Your task to perform on an android device: Open wifi settings Image 0: 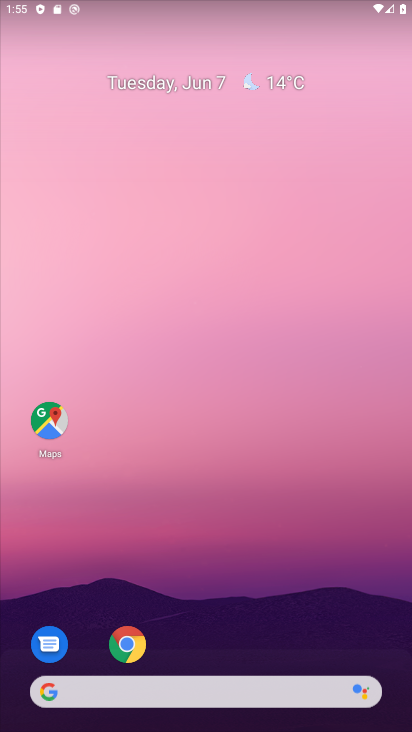
Step 0: drag from (344, 592) to (353, 99)
Your task to perform on an android device: Open wifi settings Image 1: 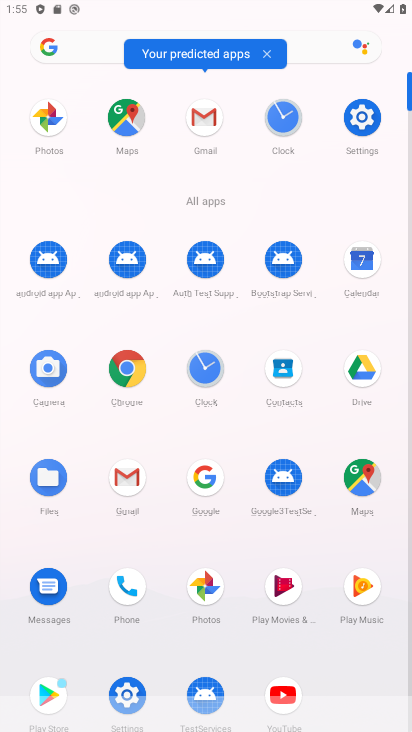
Step 1: click (356, 134)
Your task to perform on an android device: Open wifi settings Image 2: 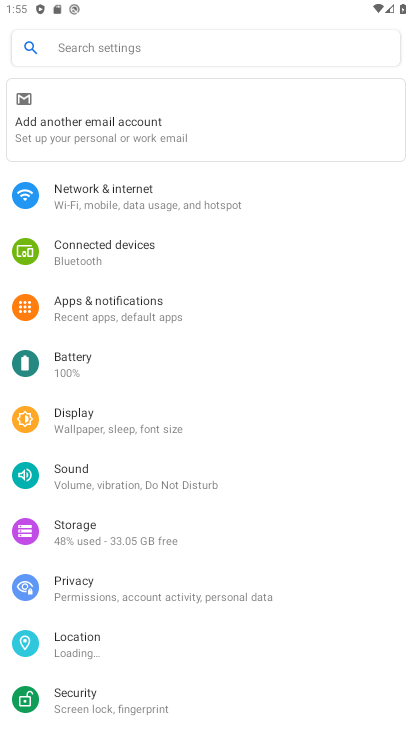
Step 2: drag from (303, 429) to (286, 302)
Your task to perform on an android device: Open wifi settings Image 3: 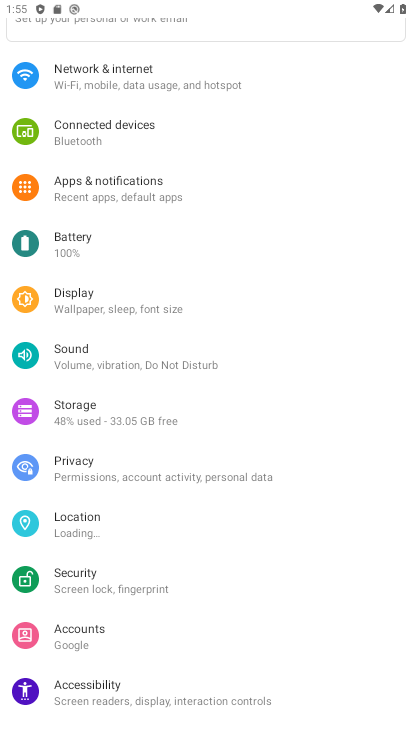
Step 3: drag from (300, 504) to (319, 356)
Your task to perform on an android device: Open wifi settings Image 4: 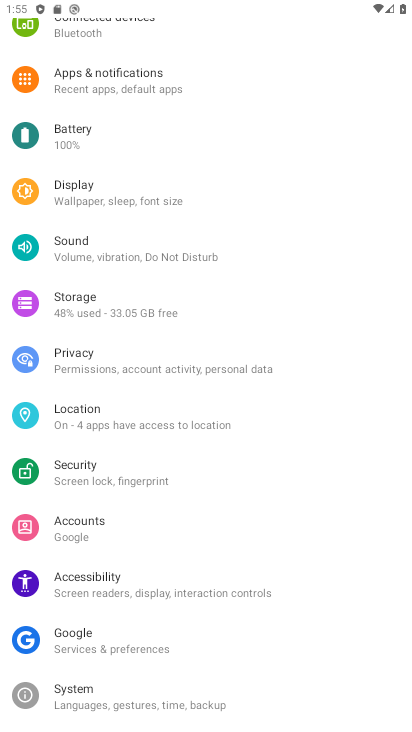
Step 4: drag from (335, 525) to (332, 400)
Your task to perform on an android device: Open wifi settings Image 5: 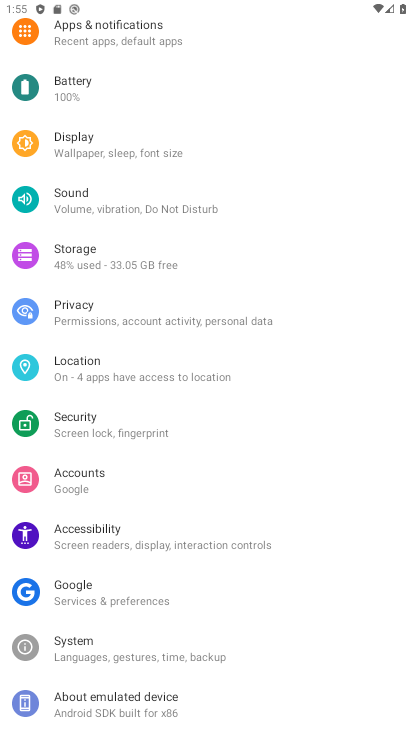
Step 5: drag from (330, 526) to (329, 376)
Your task to perform on an android device: Open wifi settings Image 6: 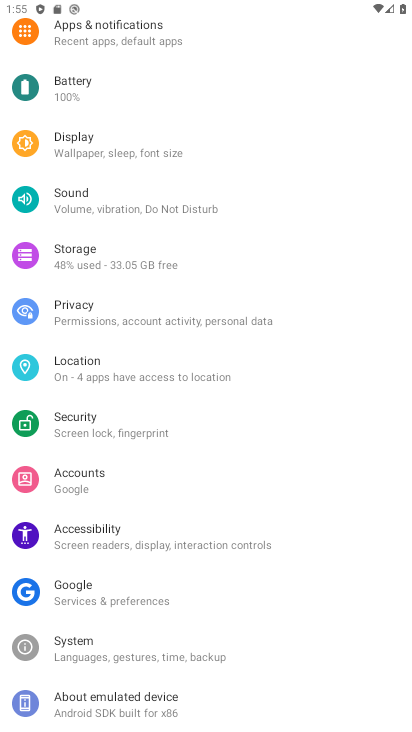
Step 6: drag from (315, 249) to (350, 375)
Your task to perform on an android device: Open wifi settings Image 7: 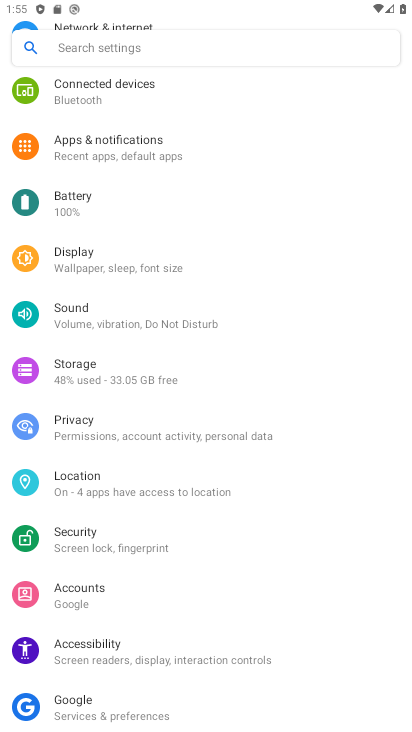
Step 7: drag from (304, 222) to (307, 331)
Your task to perform on an android device: Open wifi settings Image 8: 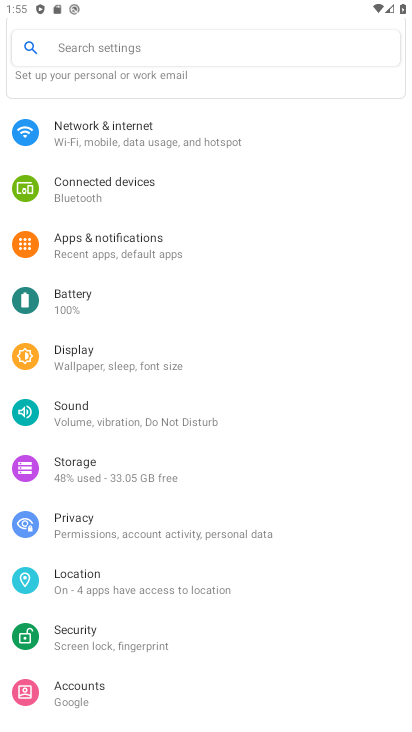
Step 8: drag from (298, 209) to (318, 329)
Your task to perform on an android device: Open wifi settings Image 9: 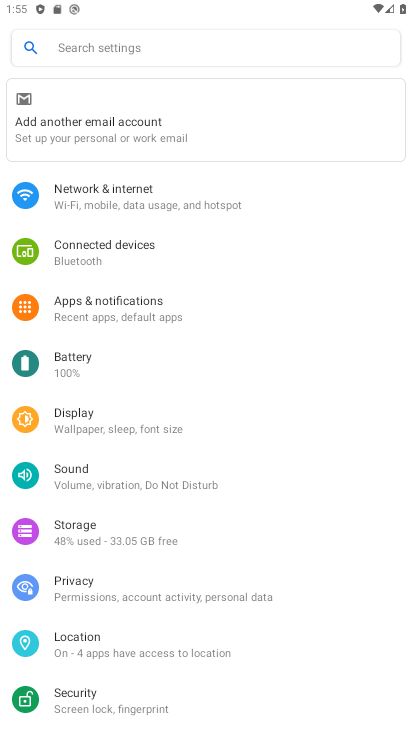
Step 9: drag from (300, 263) to (324, 369)
Your task to perform on an android device: Open wifi settings Image 10: 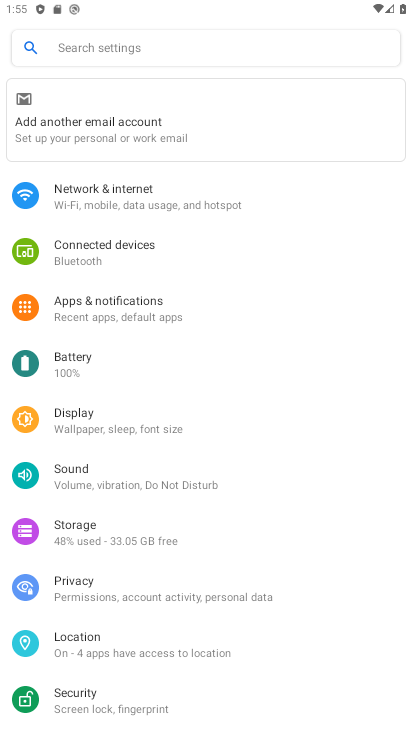
Step 10: click (261, 220)
Your task to perform on an android device: Open wifi settings Image 11: 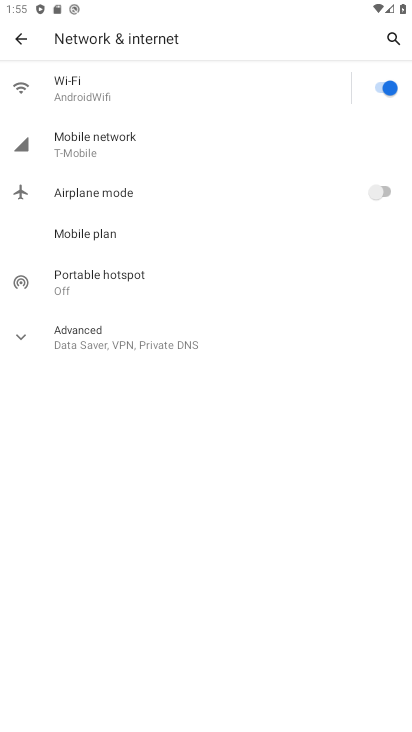
Step 11: click (149, 102)
Your task to perform on an android device: Open wifi settings Image 12: 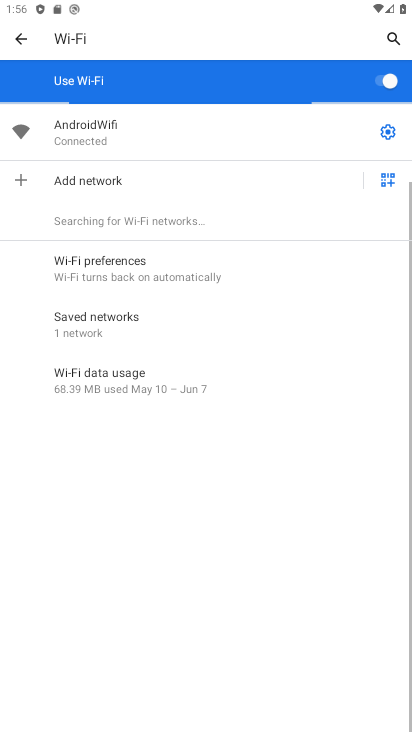
Step 12: task complete